Your task to perform on an android device: turn on data saver in the chrome app Image 0: 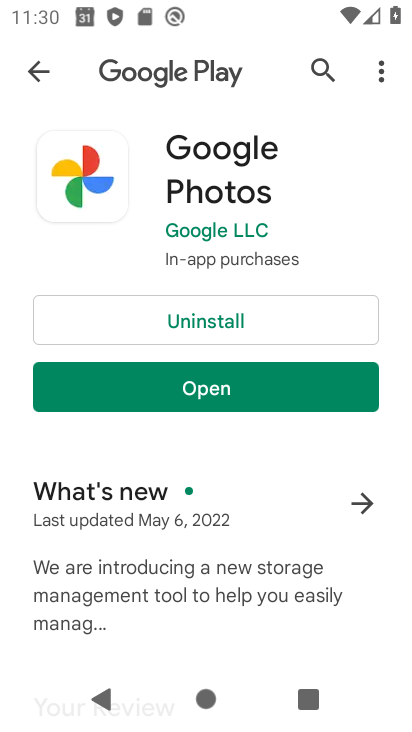
Step 0: press home button
Your task to perform on an android device: turn on data saver in the chrome app Image 1: 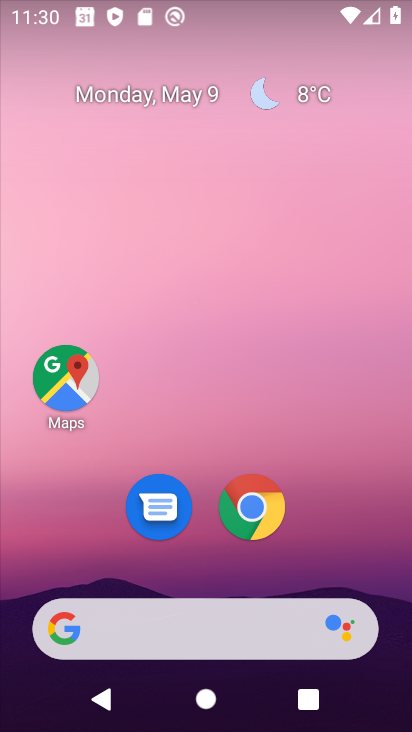
Step 1: click (251, 528)
Your task to perform on an android device: turn on data saver in the chrome app Image 2: 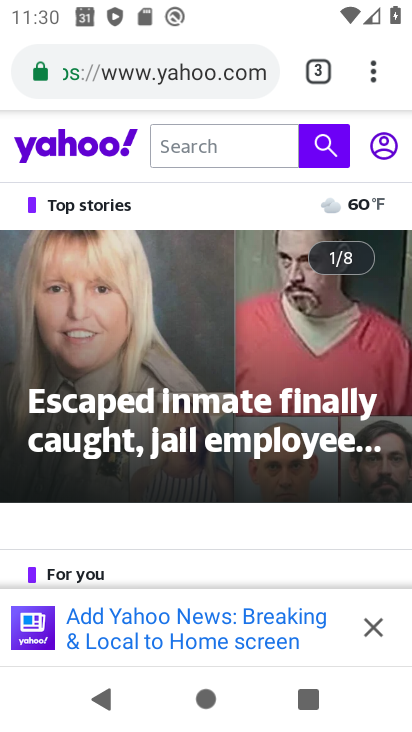
Step 2: click (376, 83)
Your task to perform on an android device: turn on data saver in the chrome app Image 3: 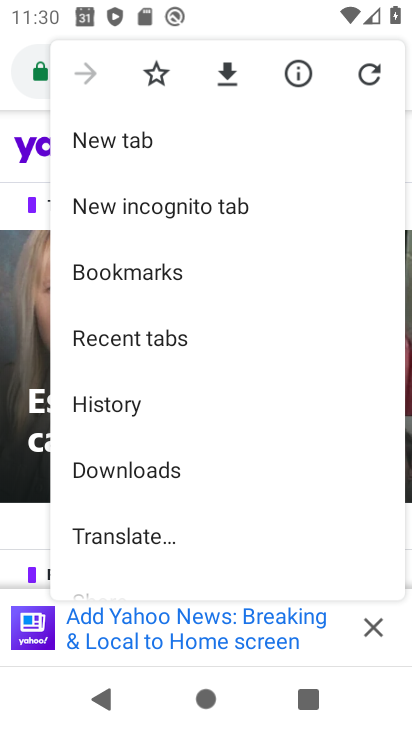
Step 3: drag from (243, 499) to (213, 147)
Your task to perform on an android device: turn on data saver in the chrome app Image 4: 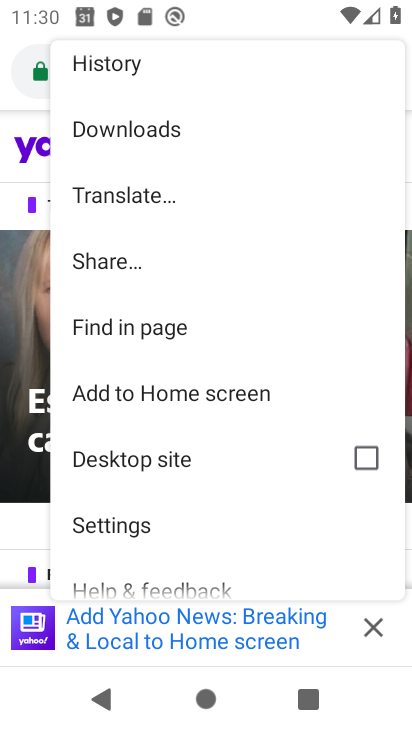
Step 4: click (170, 532)
Your task to perform on an android device: turn on data saver in the chrome app Image 5: 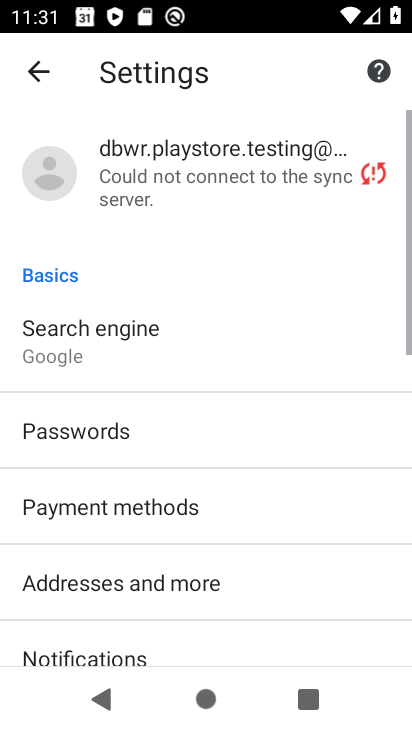
Step 5: drag from (254, 536) to (246, 109)
Your task to perform on an android device: turn on data saver in the chrome app Image 6: 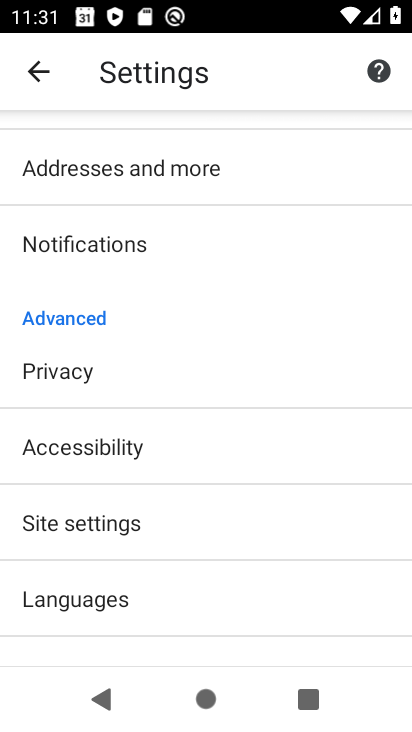
Step 6: drag from (182, 582) to (176, 275)
Your task to perform on an android device: turn on data saver in the chrome app Image 7: 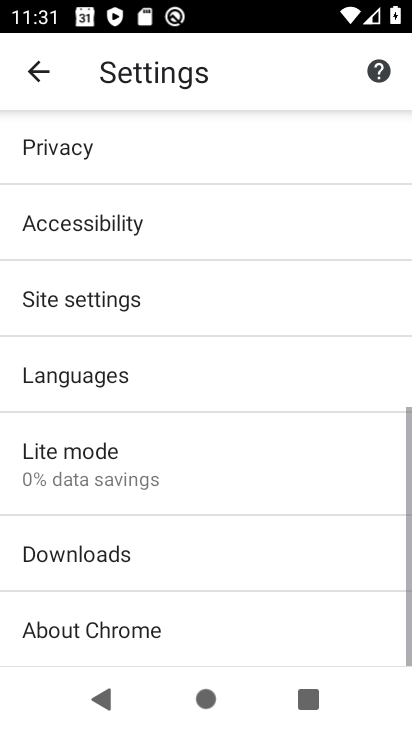
Step 7: click (146, 450)
Your task to perform on an android device: turn on data saver in the chrome app Image 8: 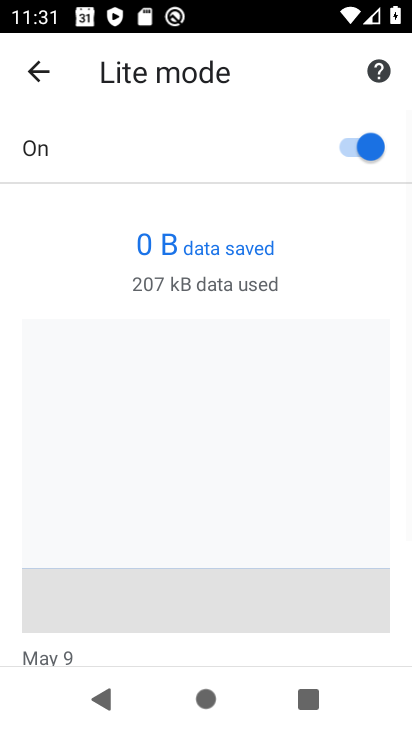
Step 8: task complete